Your task to perform on an android device: Play the last video I watched on Youtube Image 0: 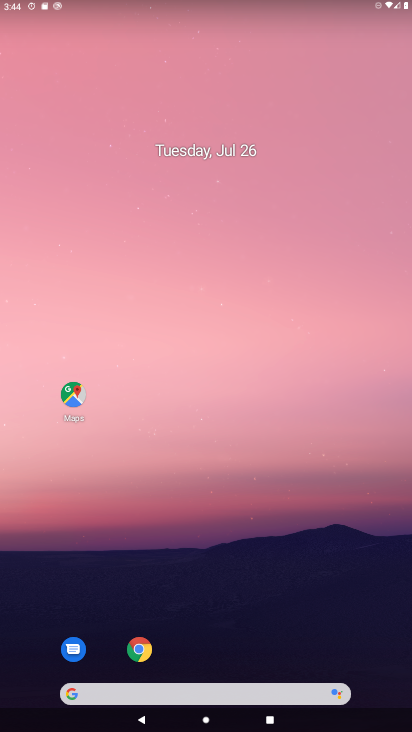
Step 0: drag from (308, 644) to (205, 13)
Your task to perform on an android device: Play the last video I watched on Youtube Image 1: 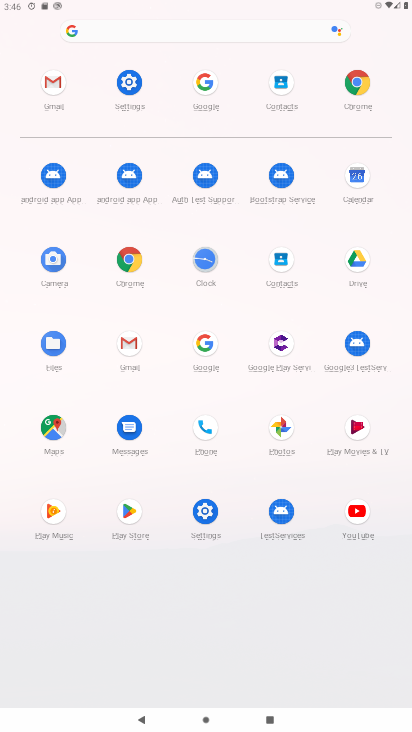
Step 1: click (362, 522)
Your task to perform on an android device: Play the last video I watched on Youtube Image 2: 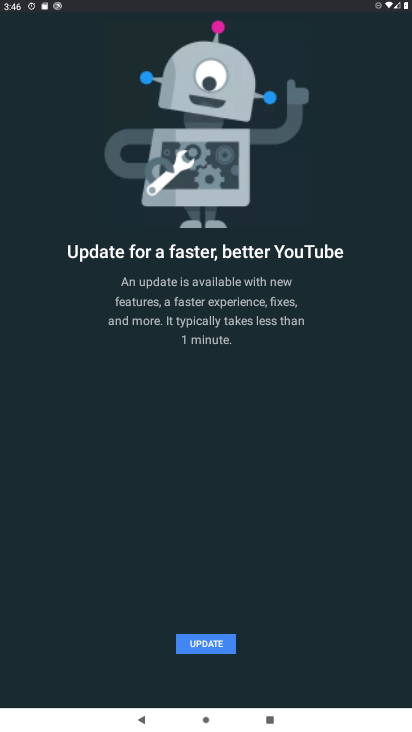
Step 2: task complete